Your task to perform on an android device: empty trash in google photos Image 0: 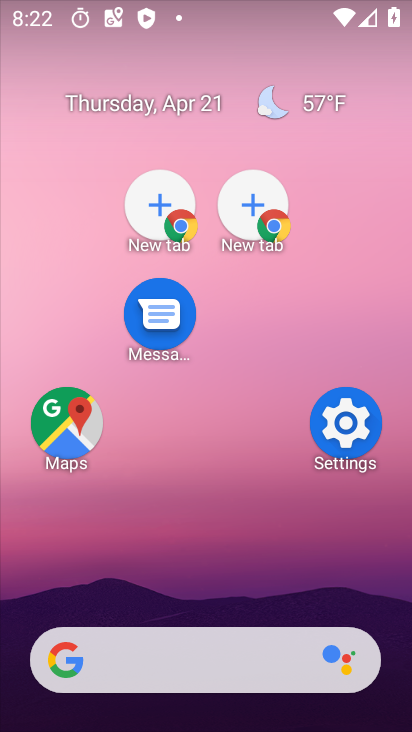
Step 0: drag from (327, 707) to (230, 157)
Your task to perform on an android device: empty trash in google photos Image 1: 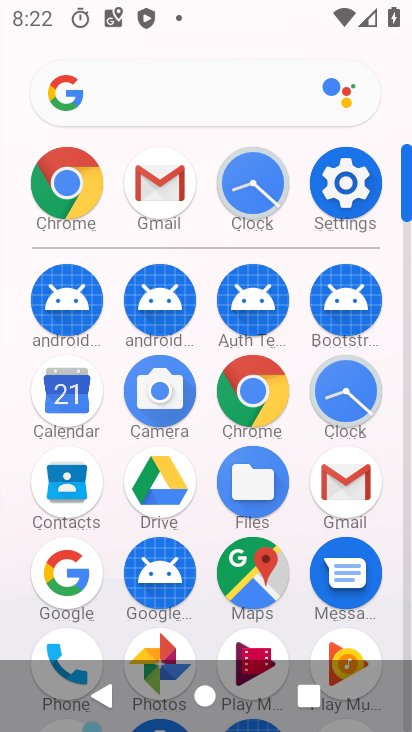
Step 1: drag from (304, 701) to (200, 93)
Your task to perform on an android device: empty trash in google photos Image 2: 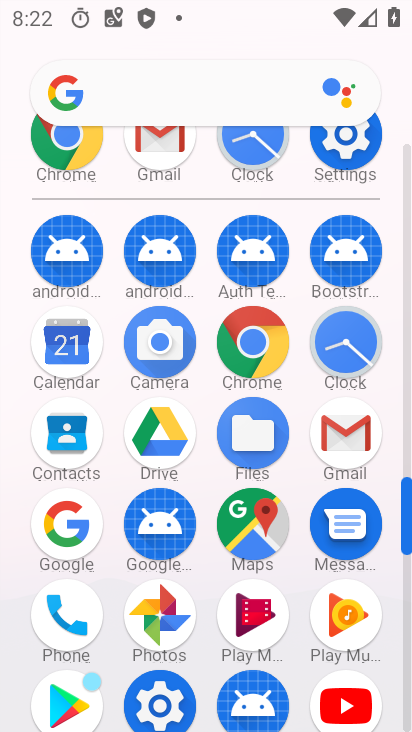
Step 2: click (157, 611)
Your task to perform on an android device: empty trash in google photos Image 3: 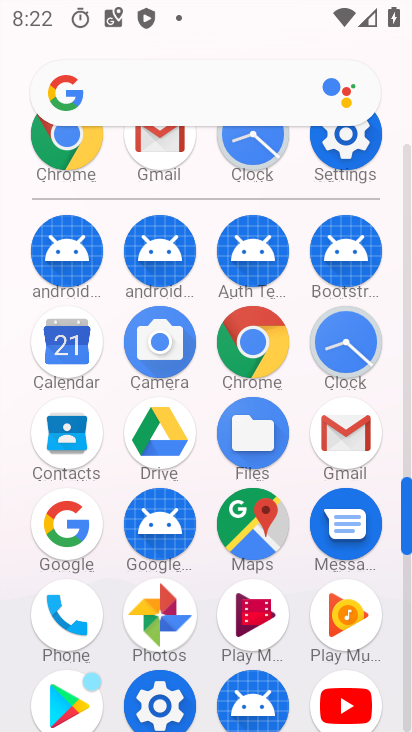
Step 3: click (157, 611)
Your task to perform on an android device: empty trash in google photos Image 4: 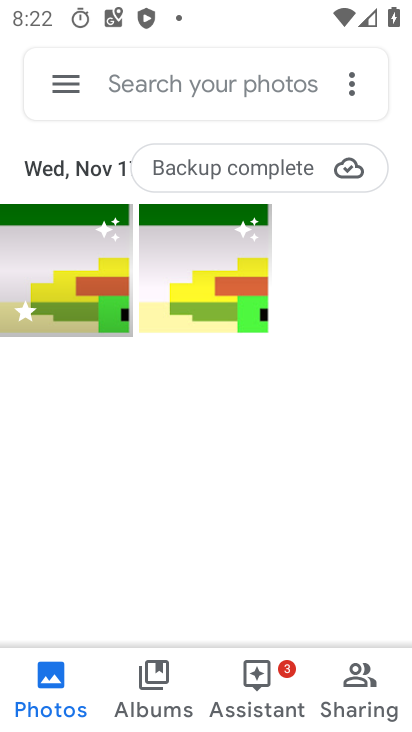
Step 4: click (64, 87)
Your task to perform on an android device: empty trash in google photos Image 5: 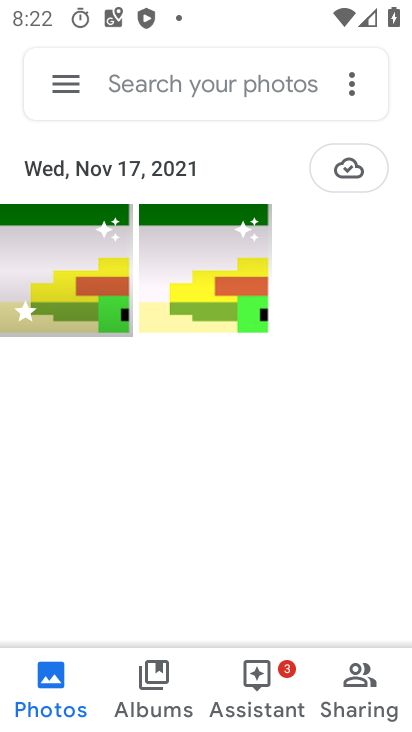
Step 5: drag from (71, 80) to (91, 48)
Your task to perform on an android device: empty trash in google photos Image 6: 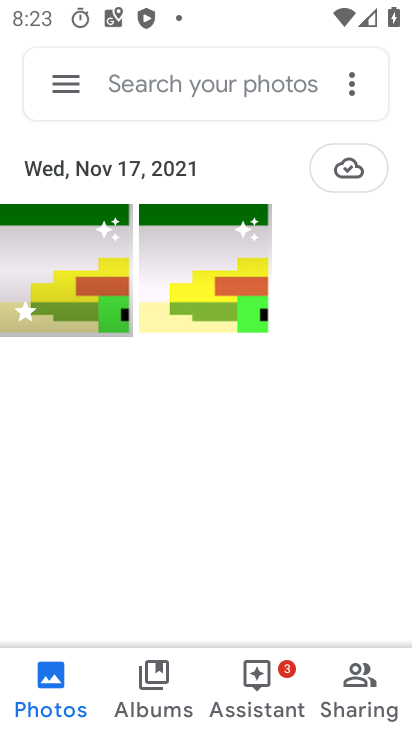
Step 6: click (79, 77)
Your task to perform on an android device: empty trash in google photos Image 7: 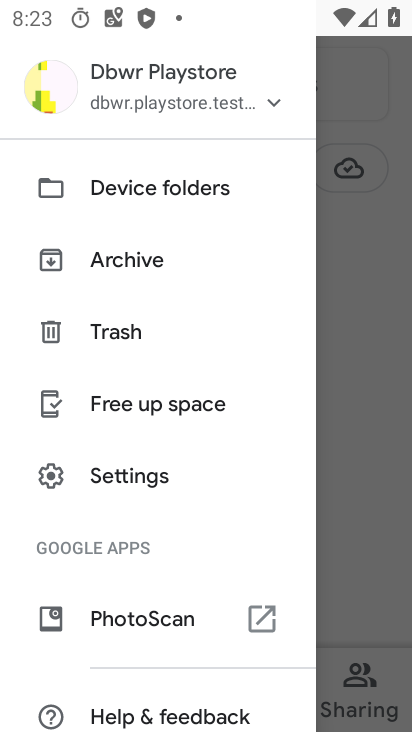
Step 7: click (70, 81)
Your task to perform on an android device: empty trash in google photos Image 8: 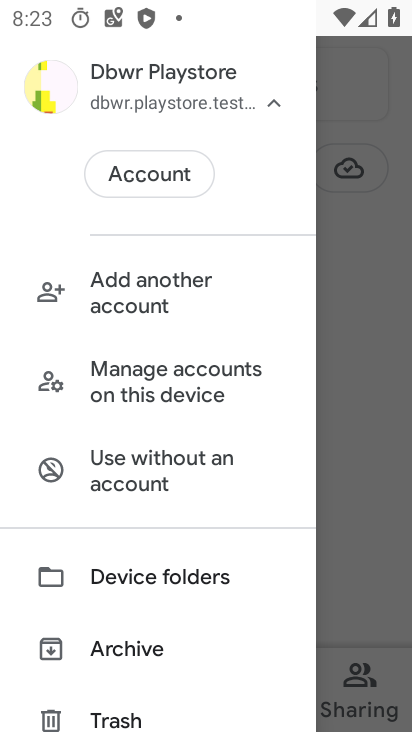
Step 8: drag from (345, 542) to (361, 508)
Your task to perform on an android device: empty trash in google photos Image 9: 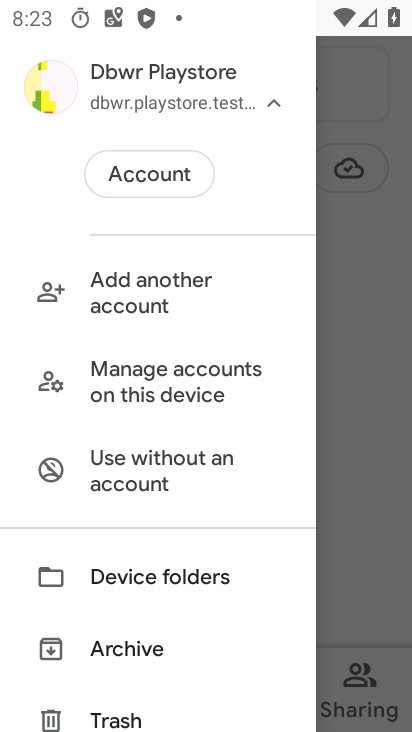
Step 9: click (383, 473)
Your task to perform on an android device: empty trash in google photos Image 10: 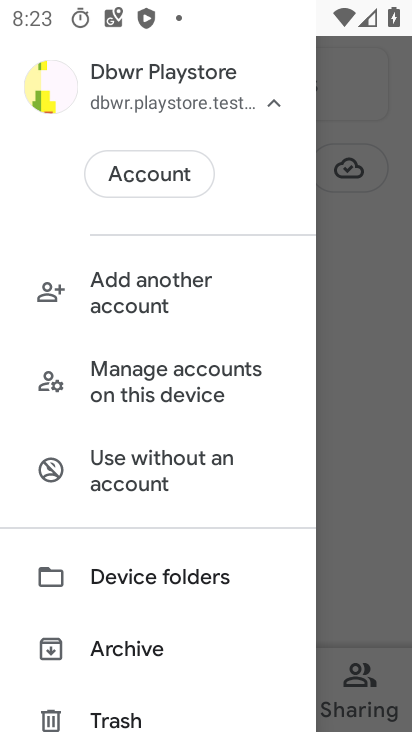
Step 10: click (359, 445)
Your task to perform on an android device: empty trash in google photos Image 11: 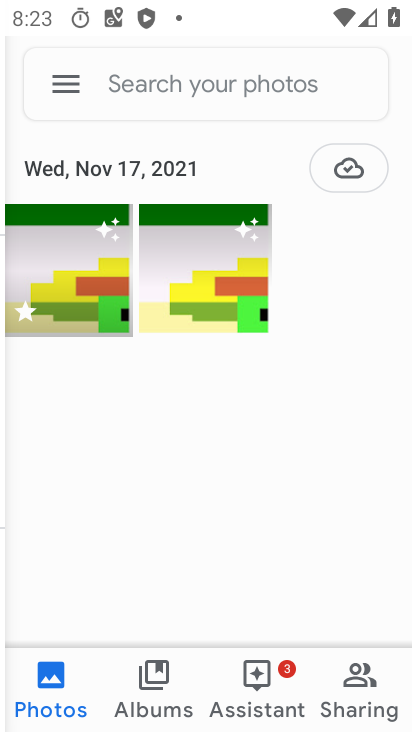
Step 11: click (359, 445)
Your task to perform on an android device: empty trash in google photos Image 12: 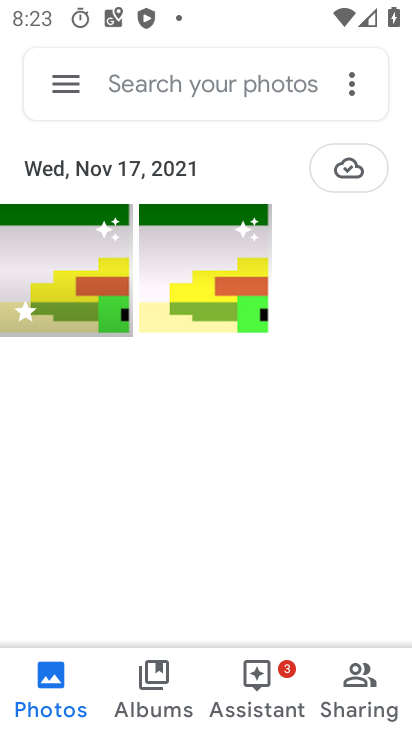
Step 12: click (61, 89)
Your task to perform on an android device: empty trash in google photos Image 13: 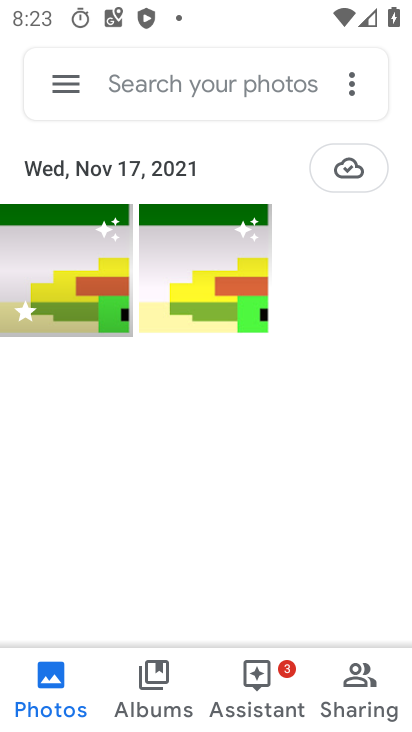
Step 13: click (71, 80)
Your task to perform on an android device: empty trash in google photos Image 14: 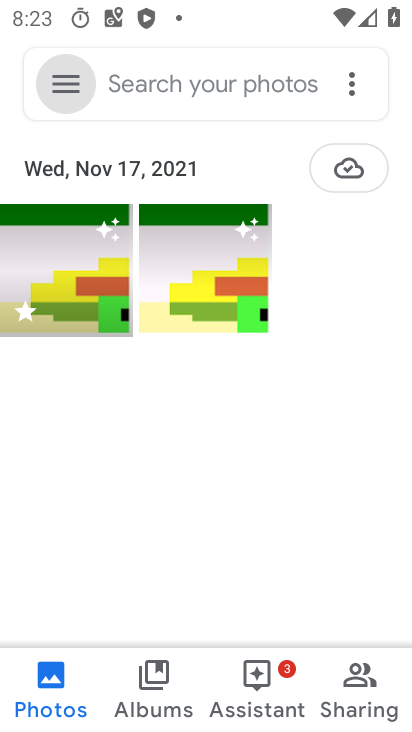
Step 14: drag from (59, 86) to (92, 718)
Your task to perform on an android device: empty trash in google photos Image 15: 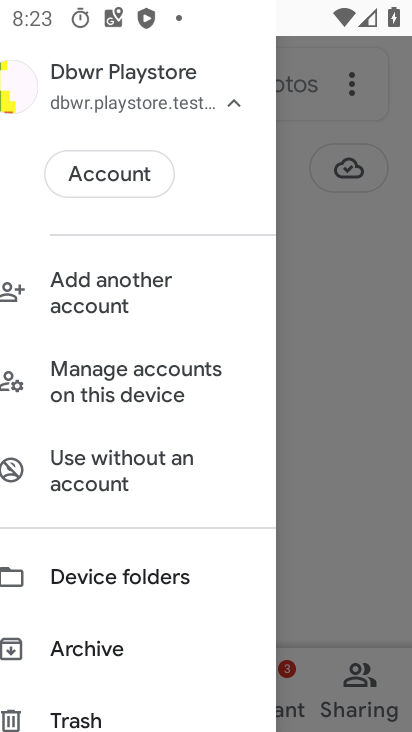
Step 15: click (90, 719)
Your task to perform on an android device: empty trash in google photos Image 16: 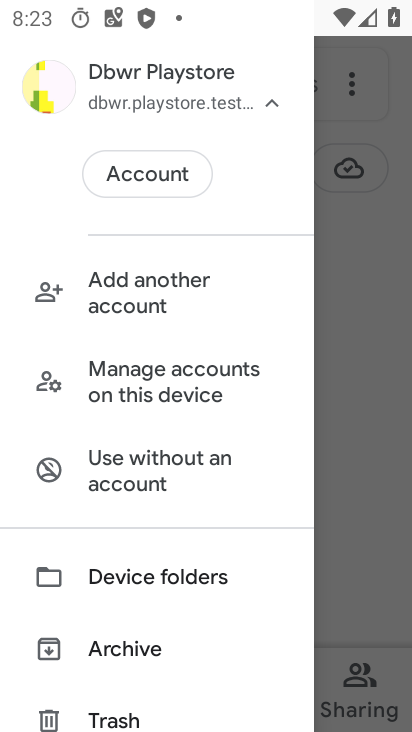
Step 16: click (89, 716)
Your task to perform on an android device: empty trash in google photos Image 17: 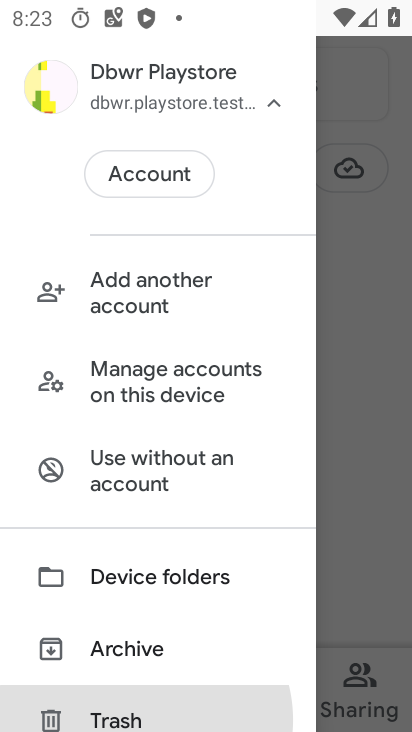
Step 17: click (89, 716)
Your task to perform on an android device: empty trash in google photos Image 18: 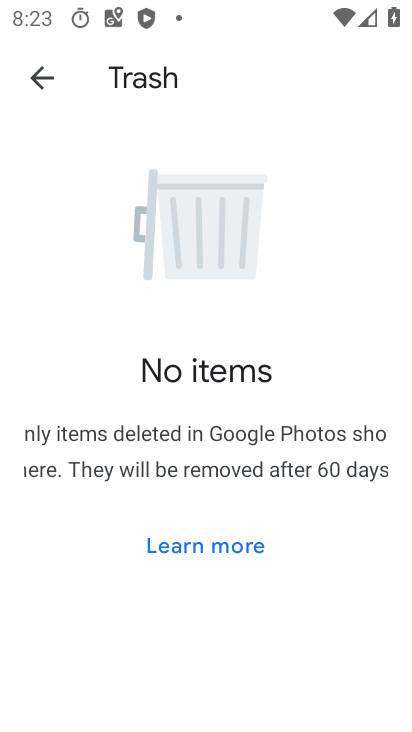
Step 18: task complete